Your task to perform on an android device: Open the Play Movies app and select the watchlist tab. Image 0: 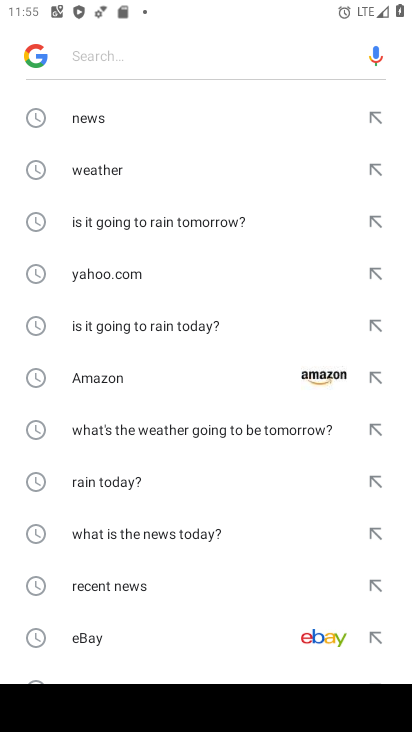
Step 0: press home button
Your task to perform on an android device: Open the Play Movies app and select the watchlist tab. Image 1: 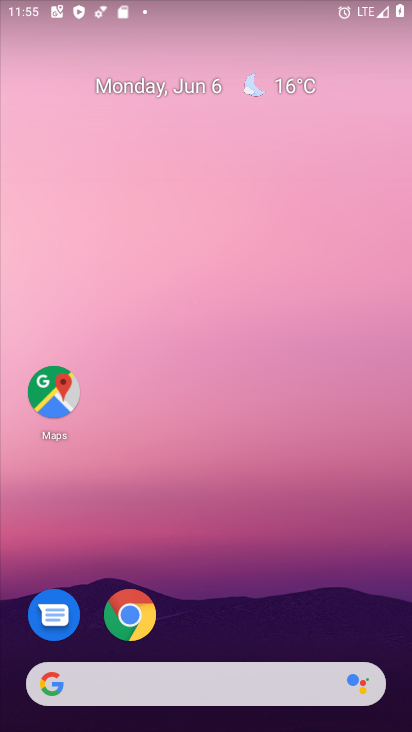
Step 1: drag from (217, 636) to (215, 24)
Your task to perform on an android device: Open the Play Movies app and select the watchlist tab. Image 2: 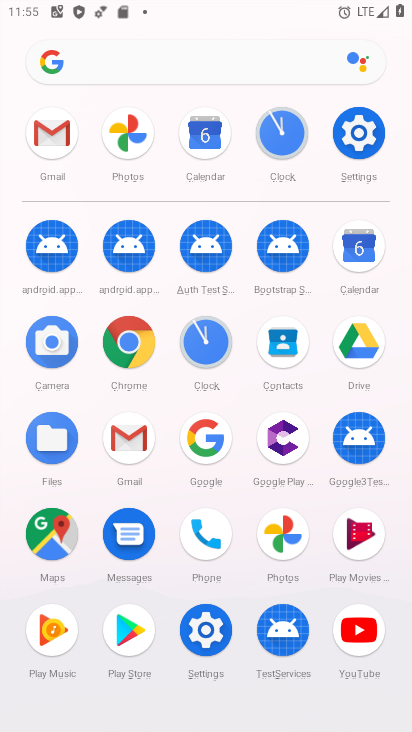
Step 2: click (355, 525)
Your task to perform on an android device: Open the Play Movies app and select the watchlist tab. Image 3: 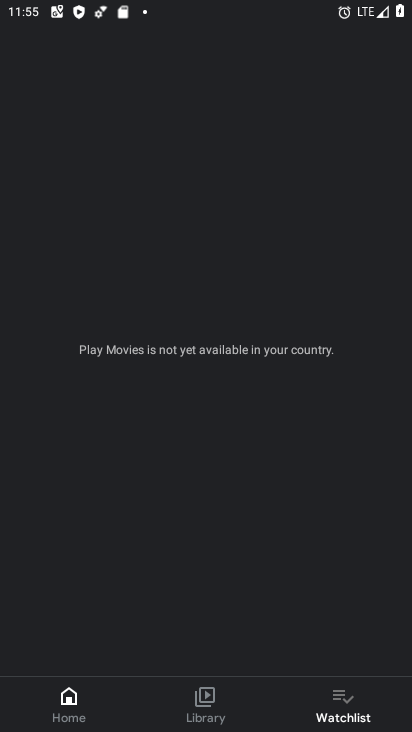
Step 3: click (327, 699)
Your task to perform on an android device: Open the Play Movies app and select the watchlist tab. Image 4: 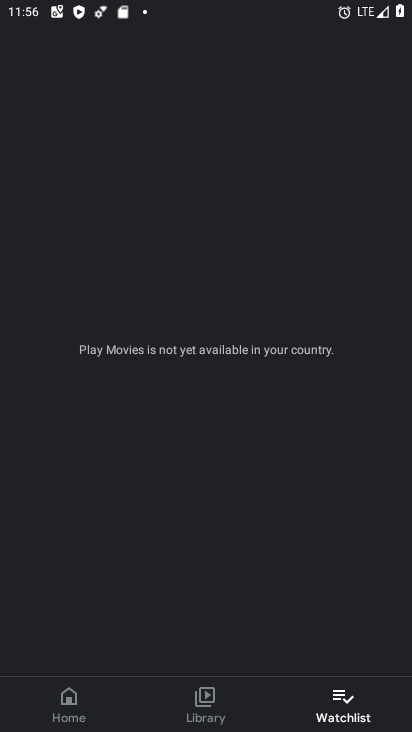
Step 4: task complete